Your task to perform on an android device: What's on my calendar today? Image 0: 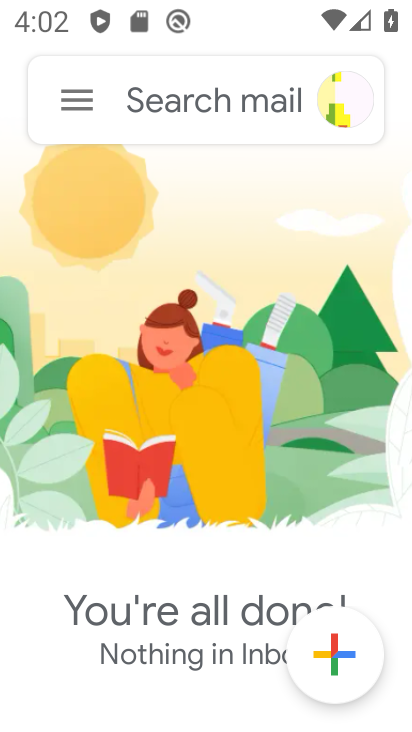
Step 0: press home button
Your task to perform on an android device: What's on my calendar today? Image 1: 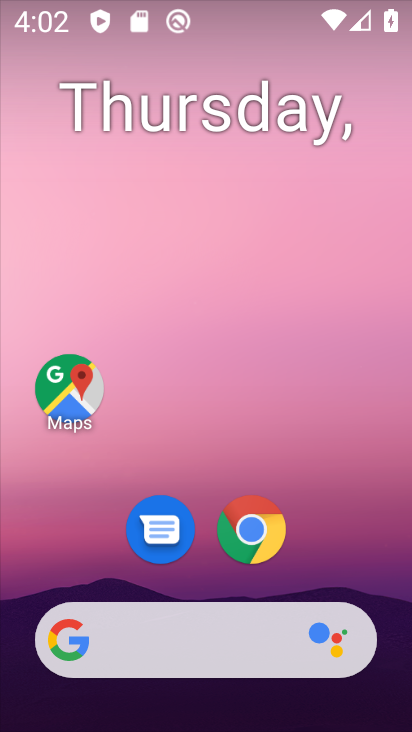
Step 1: drag from (157, 607) to (241, 104)
Your task to perform on an android device: What's on my calendar today? Image 2: 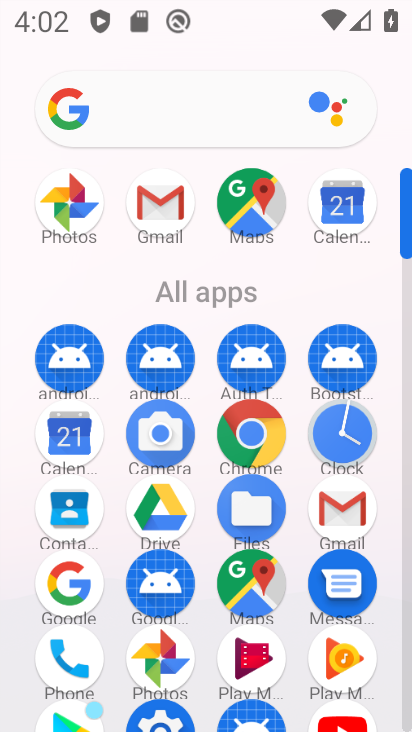
Step 2: click (358, 216)
Your task to perform on an android device: What's on my calendar today? Image 3: 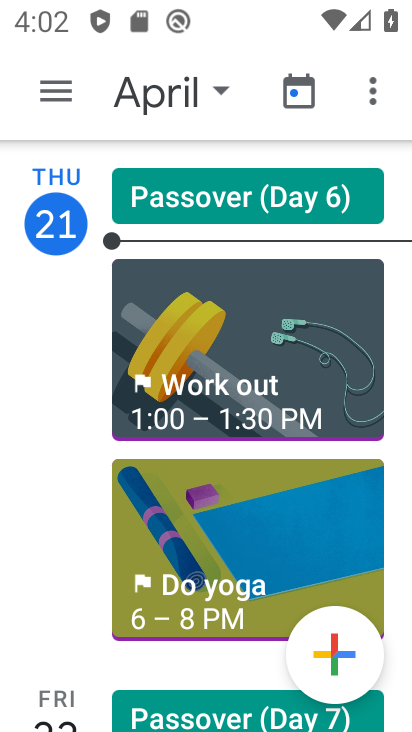
Step 3: task complete